Your task to perform on an android device: change the upload size in google photos Image 0: 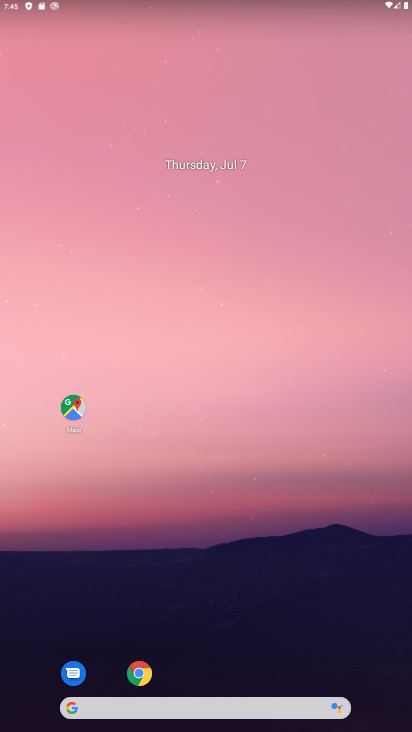
Step 0: drag from (230, 610) to (236, 94)
Your task to perform on an android device: change the upload size in google photos Image 1: 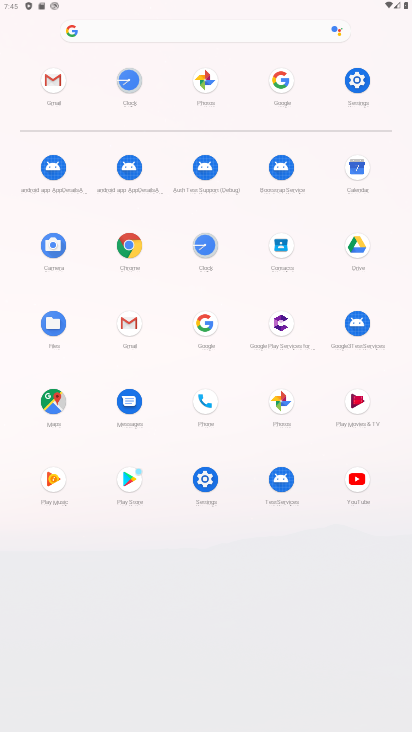
Step 1: click (205, 80)
Your task to perform on an android device: change the upload size in google photos Image 2: 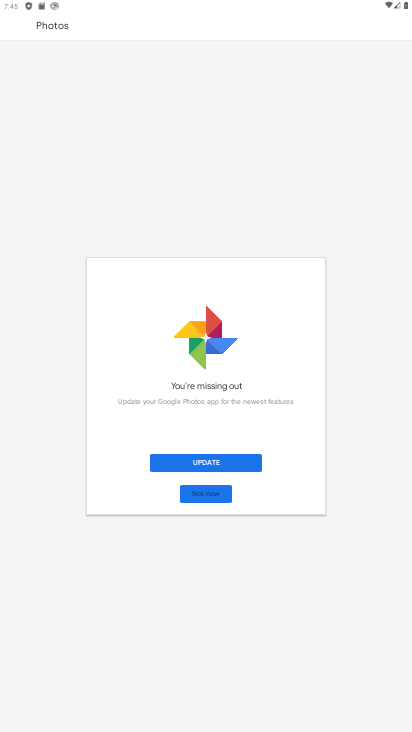
Step 2: click (216, 457)
Your task to perform on an android device: change the upload size in google photos Image 3: 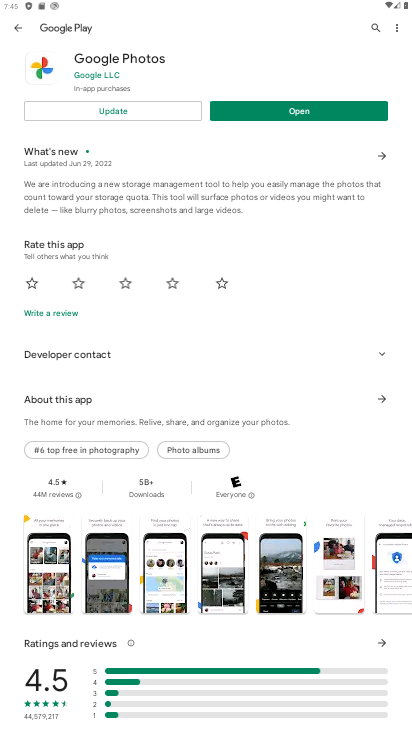
Step 3: click (135, 114)
Your task to perform on an android device: change the upload size in google photos Image 4: 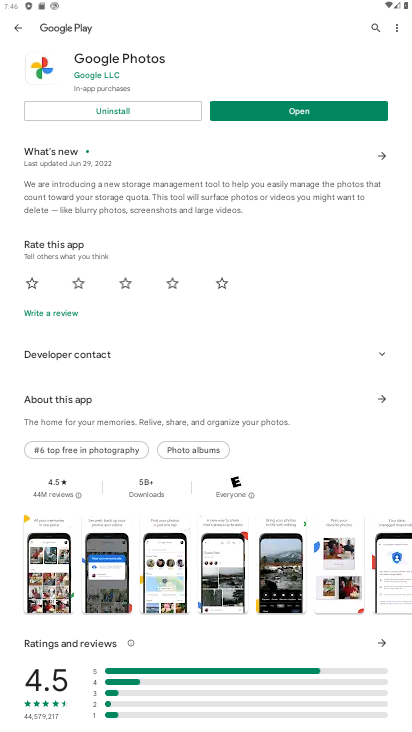
Step 4: click (243, 110)
Your task to perform on an android device: change the upload size in google photos Image 5: 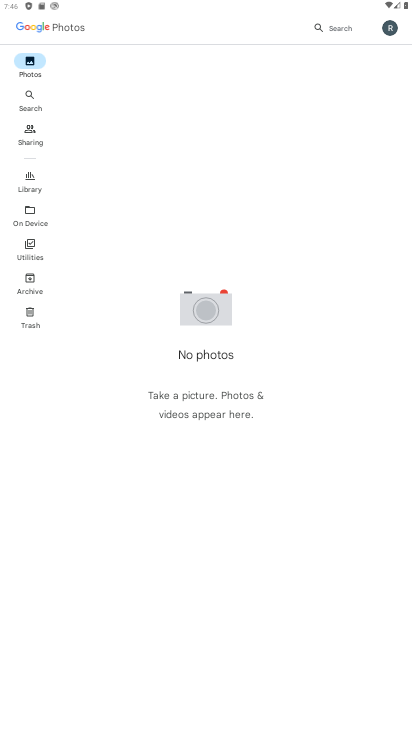
Step 5: click (388, 29)
Your task to perform on an android device: change the upload size in google photos Image 6: 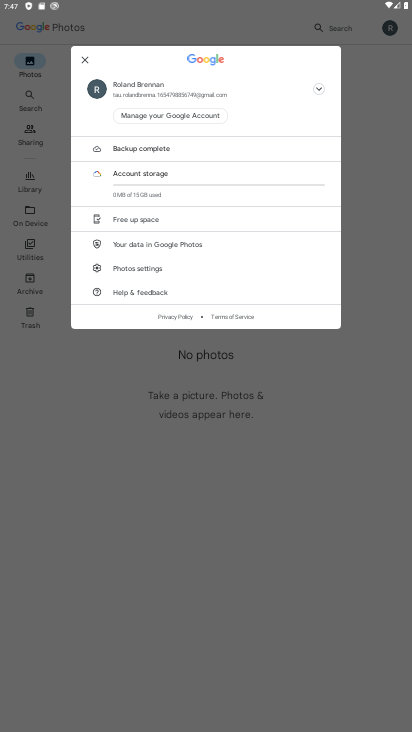
Step 6: click (143, 266)
Your task to perform on an android device: change the upload size in google photos Image 7: 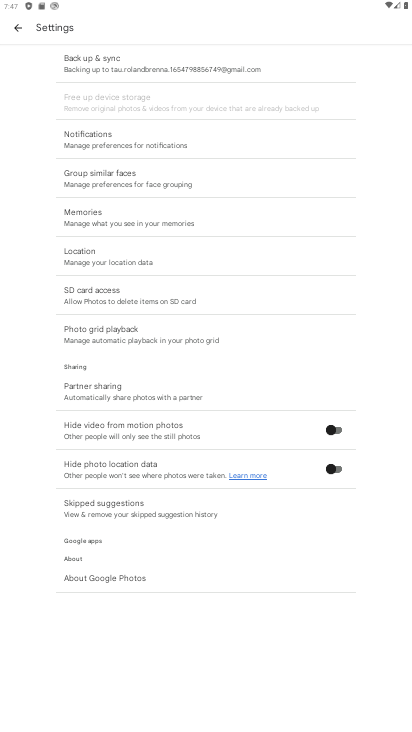
Step 7: click (187, 65)
Your task to perform on an android device: change the upload size in google photos Image 8: 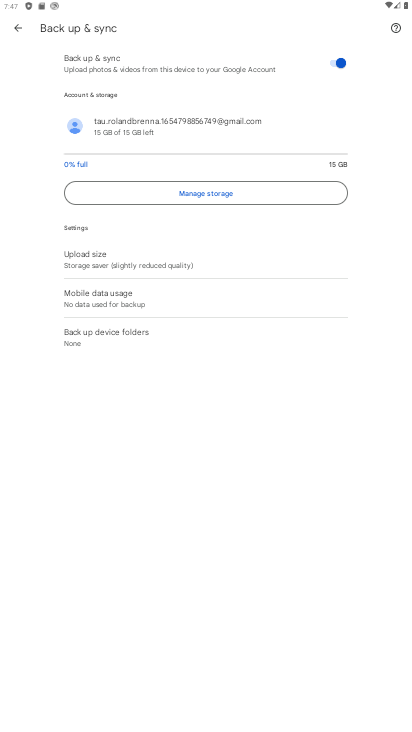
Step 8: click (127, 269)
Your task to perform on an android device: change the upload size in google photos Image 9: 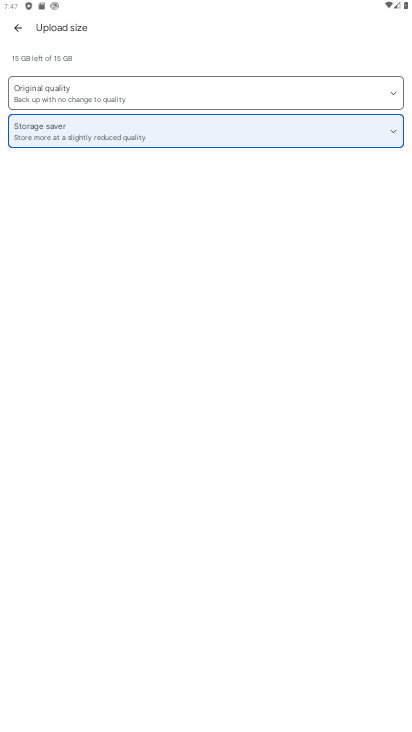
Step 9: click (104, 93)
Your task to perform on an android device: change the upload size in google photos Image 10: 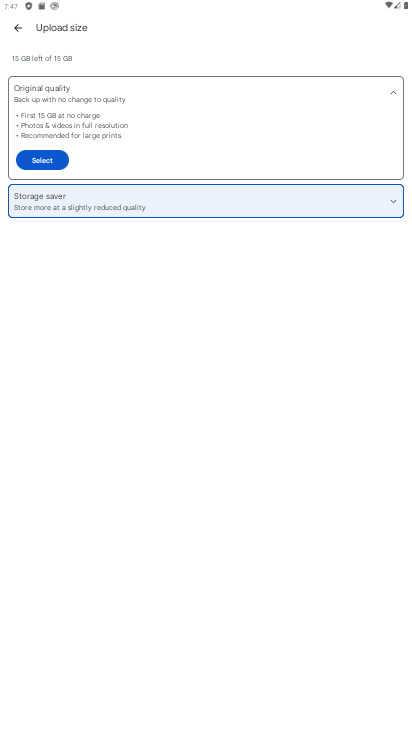
Step 10: click (56, 158)
Your task to perform on an android device: change the upload size in google photos Image 11: 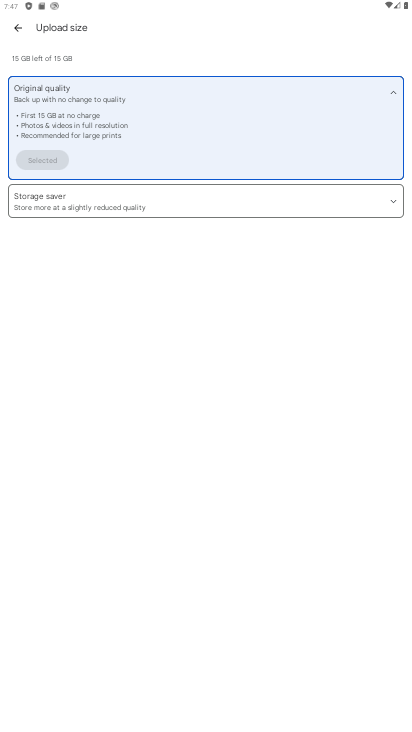
Step 11: task complete